Your task to perform on an android device: Clear the cart on amazon.com. Search for amazon basics triple a on amazon.com, select the first entry, and add it to the cart. Image 0: 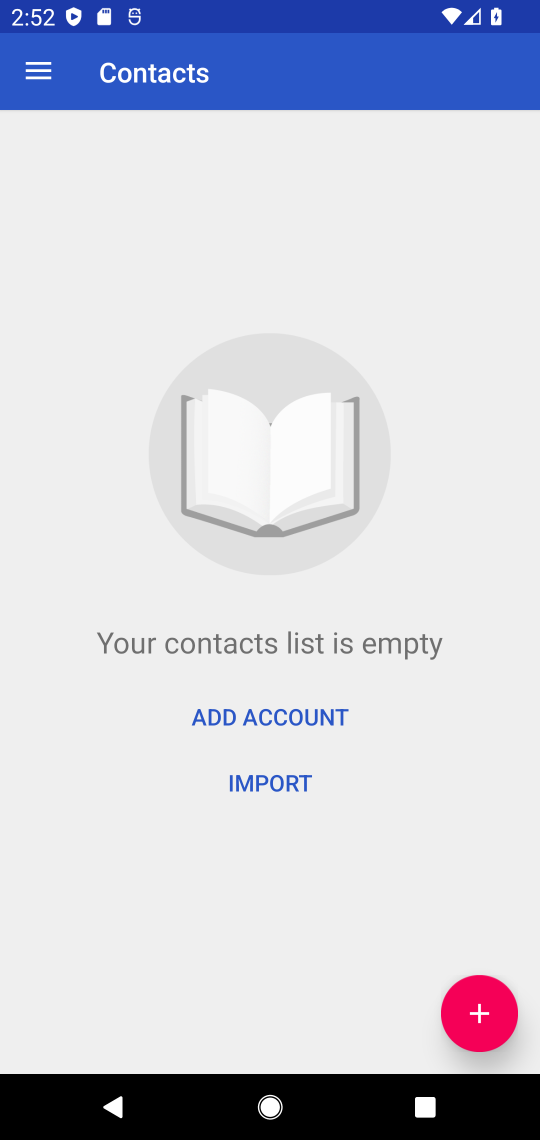
Step 0: press home button
Your task to perform on an android device: Clear the cart on amazon.com. Search for amazon basics triple a on amazon.com, select the first entry, and add it to the cart. Image 1: 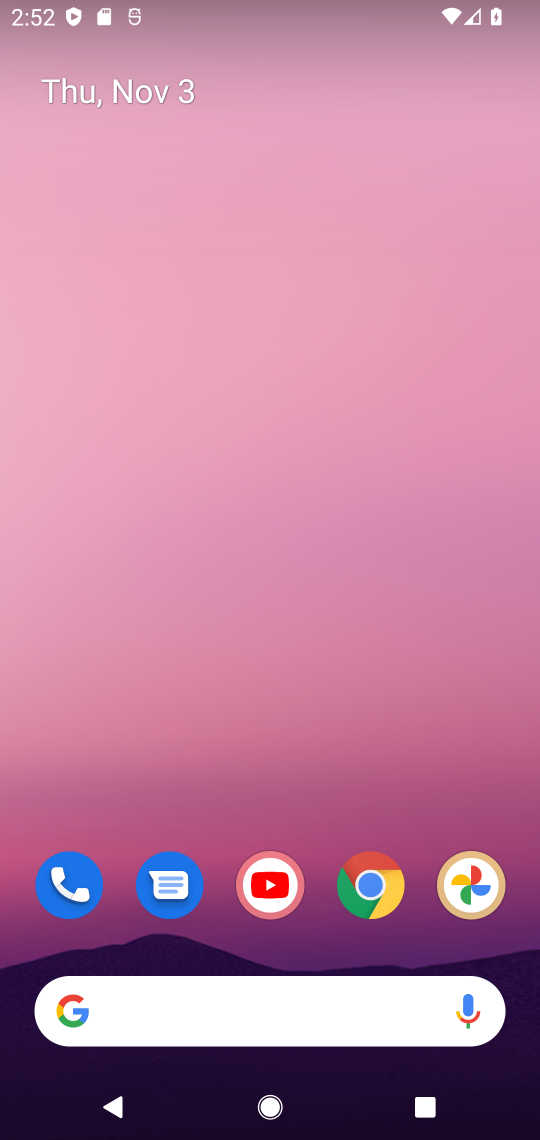
Step 1: click (369, 882)
Your task to perform on an android device: Clear the cart on amazon.com. Search for amazon basics triple a on amazon.com, select the first entry, and add it to the cart. Image 2: 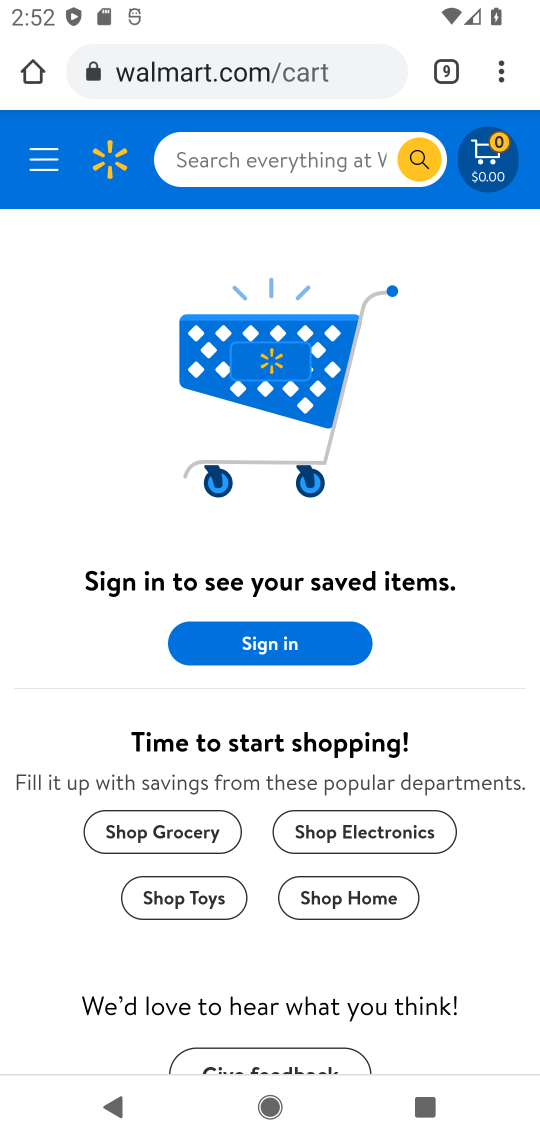
Step 2: click (501, 78)
Your task to perform on an android device: Clear the cart on amazon.com. Search for amazon basics triple a on amazon.com, select the first entry, and add it to the cart. Image 3: 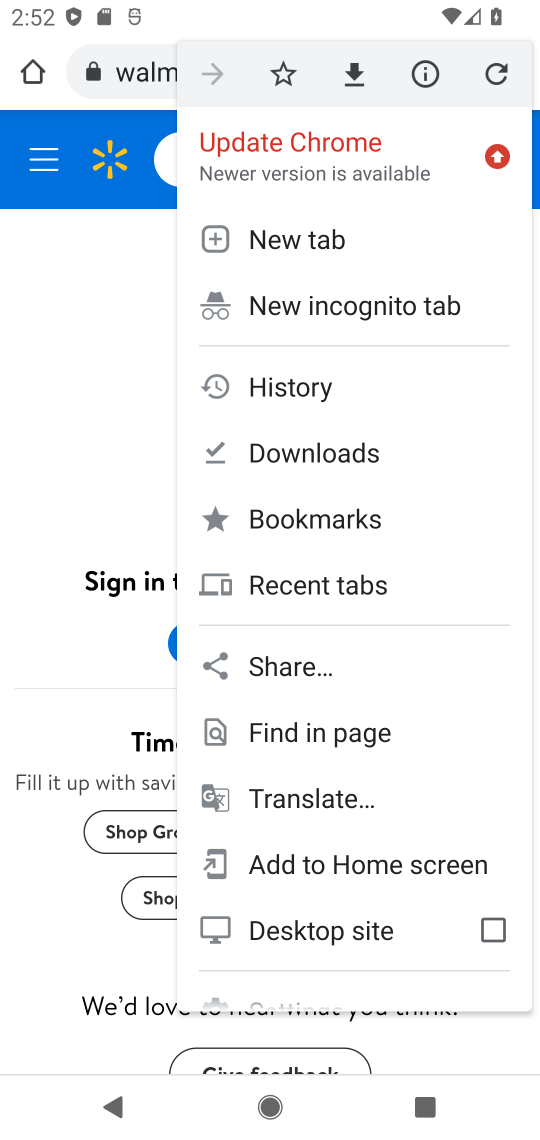
Step 3: click (302, 239)
Your task to perform on an android device: Clear the cart on amazon.com. Search for amazon basics triple a on amazon.com, select the first entry, and add it to the cart. Image 4: 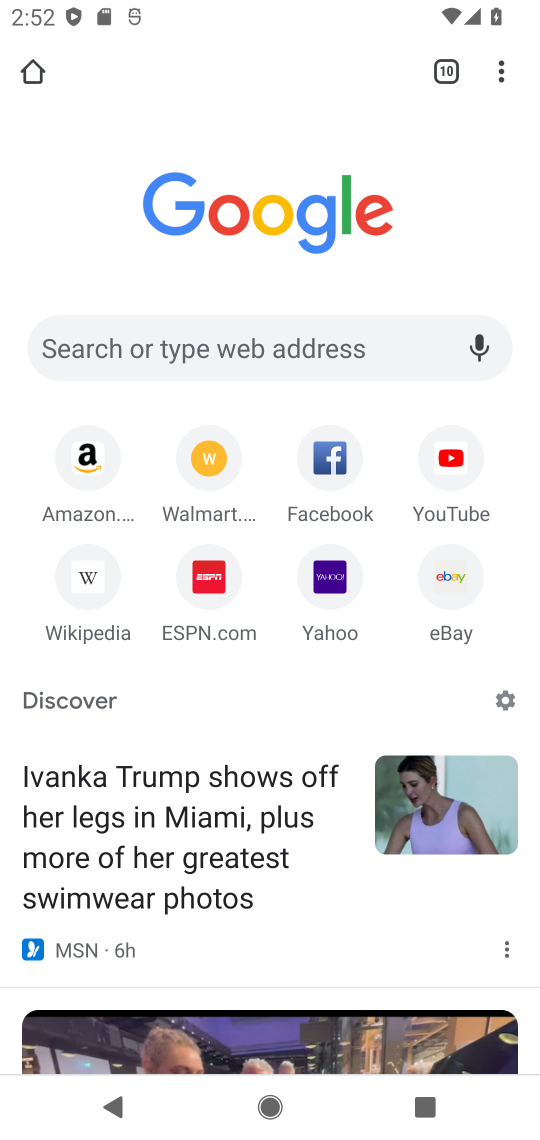
Step 4: click (90, 461)
Your task to perform on an android device: Clear the cart on amazon.com. Search for amazon basics triple a on amazon.com, select the first entry, and add it to the cart. Image 5: 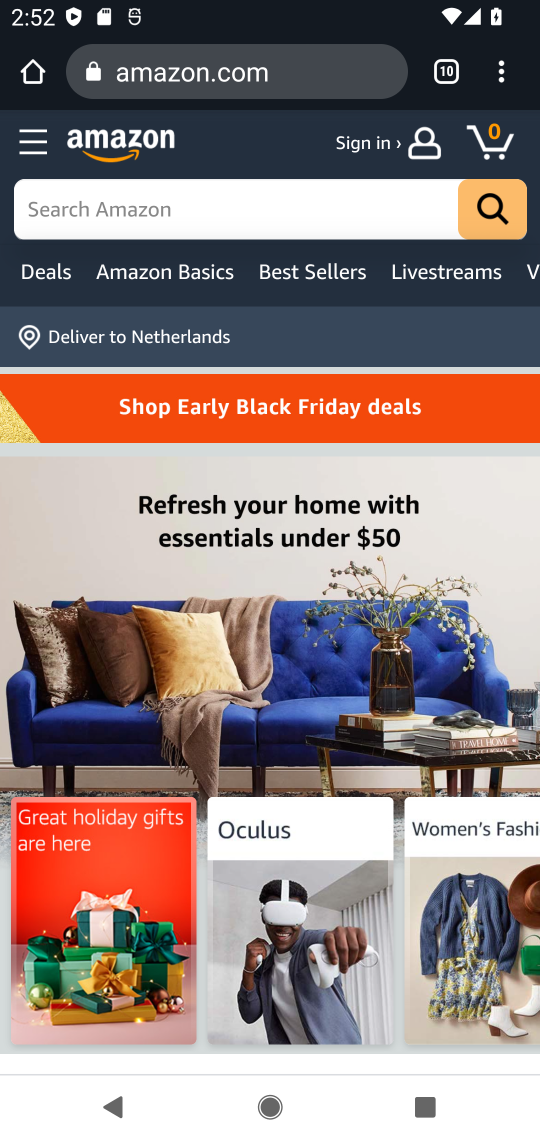
Step 5: click (488, 142)
Your task to perform on an android device: Clear the cart on amazon.com. Search for amazon basics triple a on amazon.com, select the first entry, and add it to the cart. Image 6: 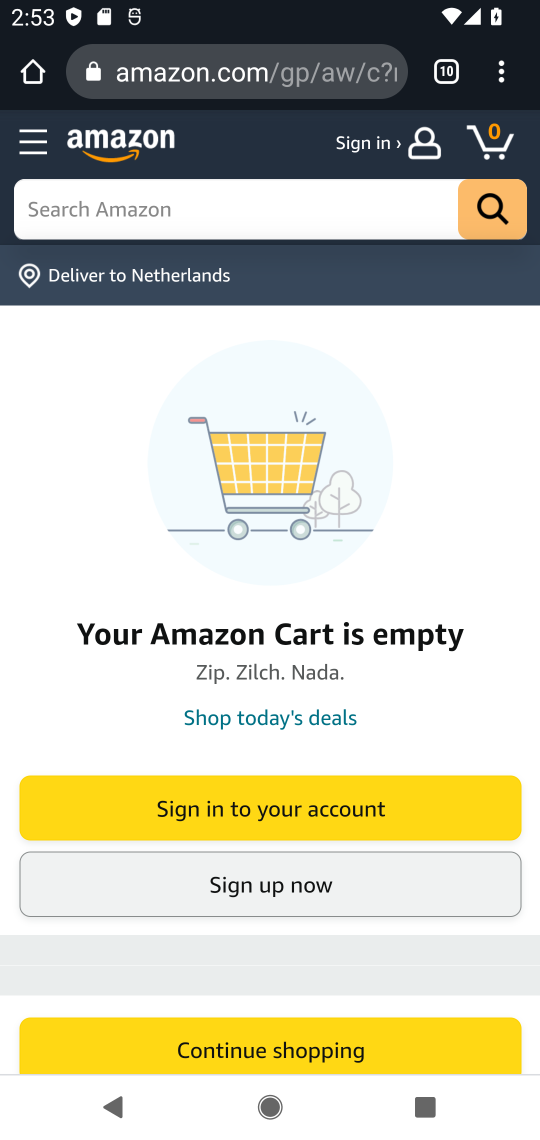
Step 6: click (276, 220)
Your task to perform on an android device: Clear the cart on amazon.com. Search for amazon basics triple a on amazon.com, select the first entry, and add it to the cart. Image 7: 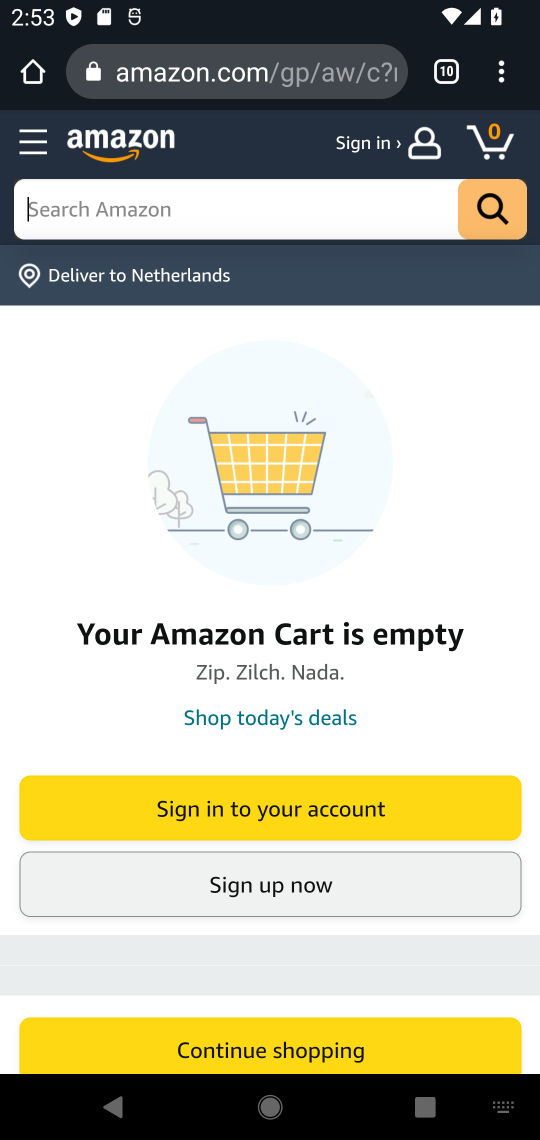
Step 7: type "amazon basics triple a "
Your task to perform on an android device: Clear the cart on amazon.com. Search for amazon basics triple a on amazon.com, select the first entry, and add it to the cart. Image 8: 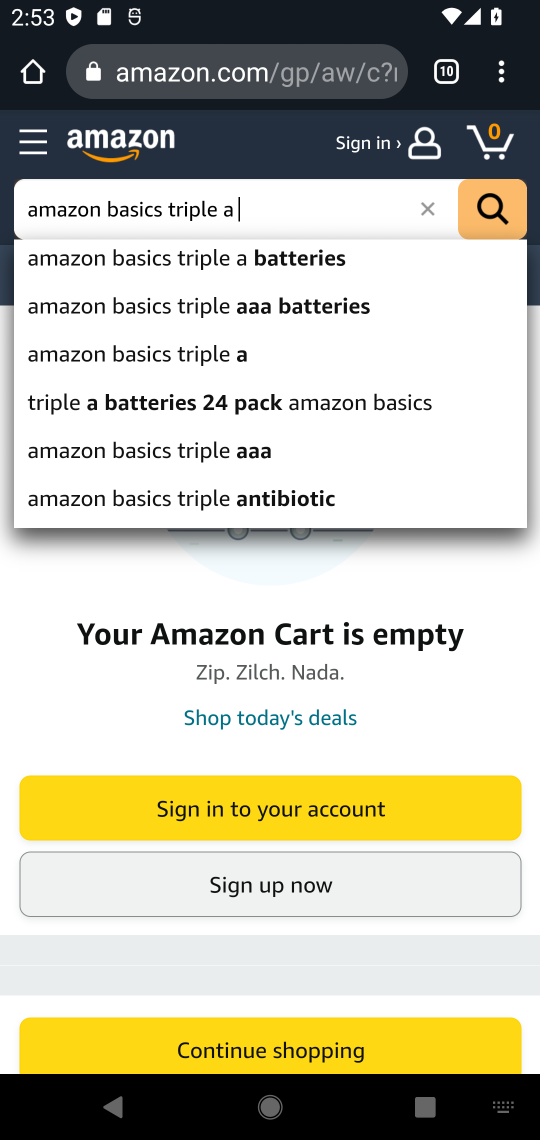
Step 8: click (484, 195)
Your task to perform on an android device: Clear the cart on amazon.com. Search for amazon basics triple a on amazon.com, select the first entry, and add it to the cart. Image 9: 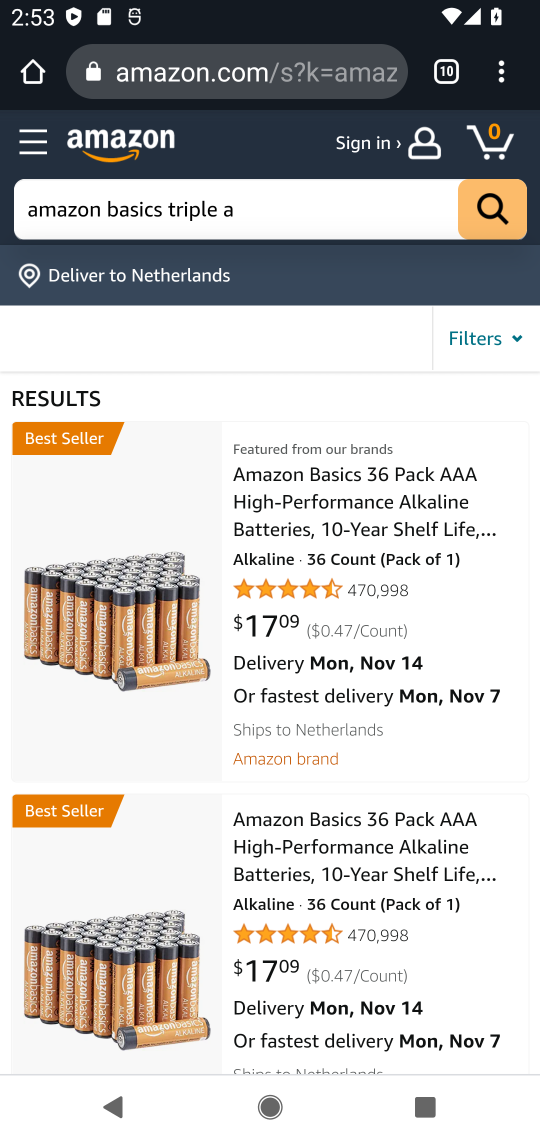
Step 9: click (403, 900)
Your task to perform on an android device: Clear the cart on amazon.com. Search for amazon basics triple a on amazon.com, select the first entry, and add it to the cart. Image 10: 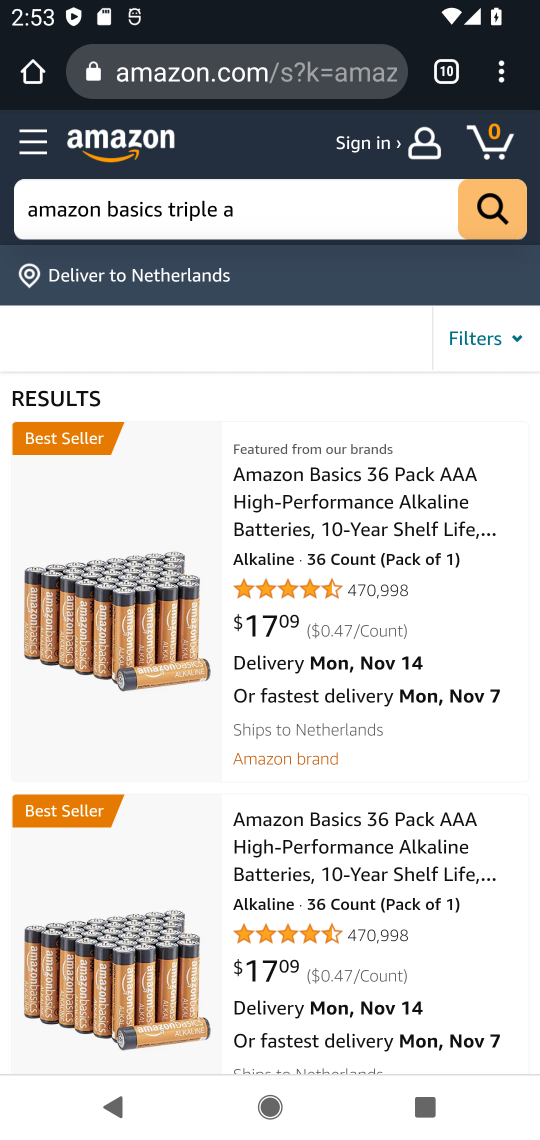
Step 10: task complete